Your task to perform on an android device: Go to Maps Image 0: 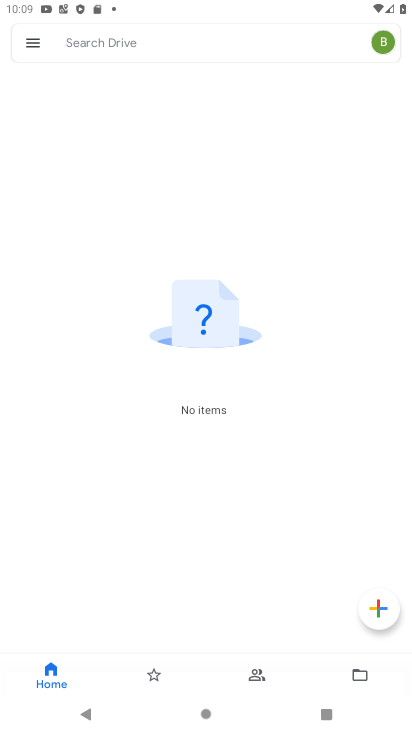
Step 0: press home button
Your task to perform on an android device: Go to Maps Image 1: 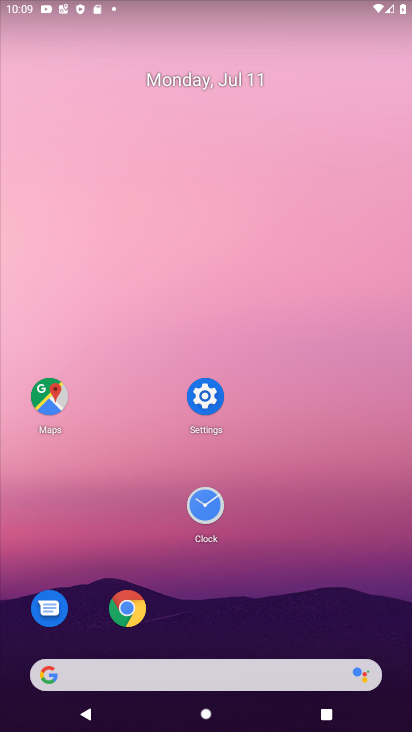
Step 1: click (46, 391)
Your task to perform on an android device: Go to Maps Image 2: 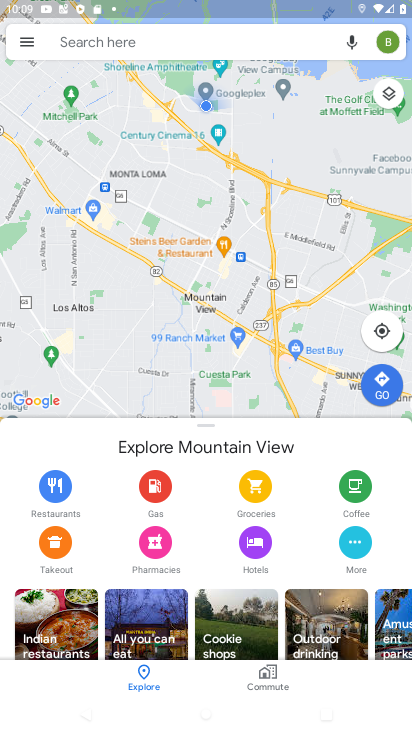
Step 2: task complete